Your task to perform on an android device: find which apps use the phone's location Image 0: 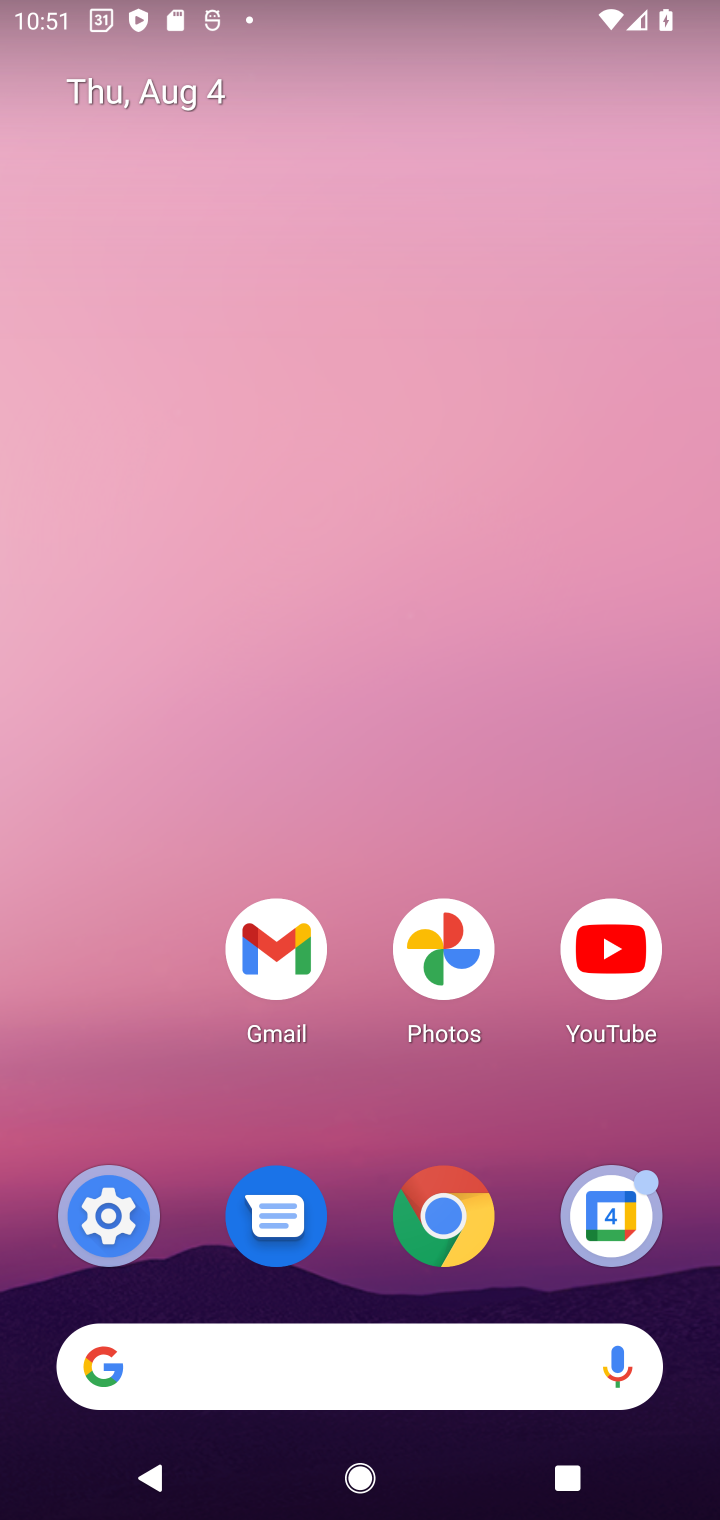
Step 0: drag from (255, 1354) to (395, 13)
Your task to perform on an android device: find which apps use the phone's location Image 1: 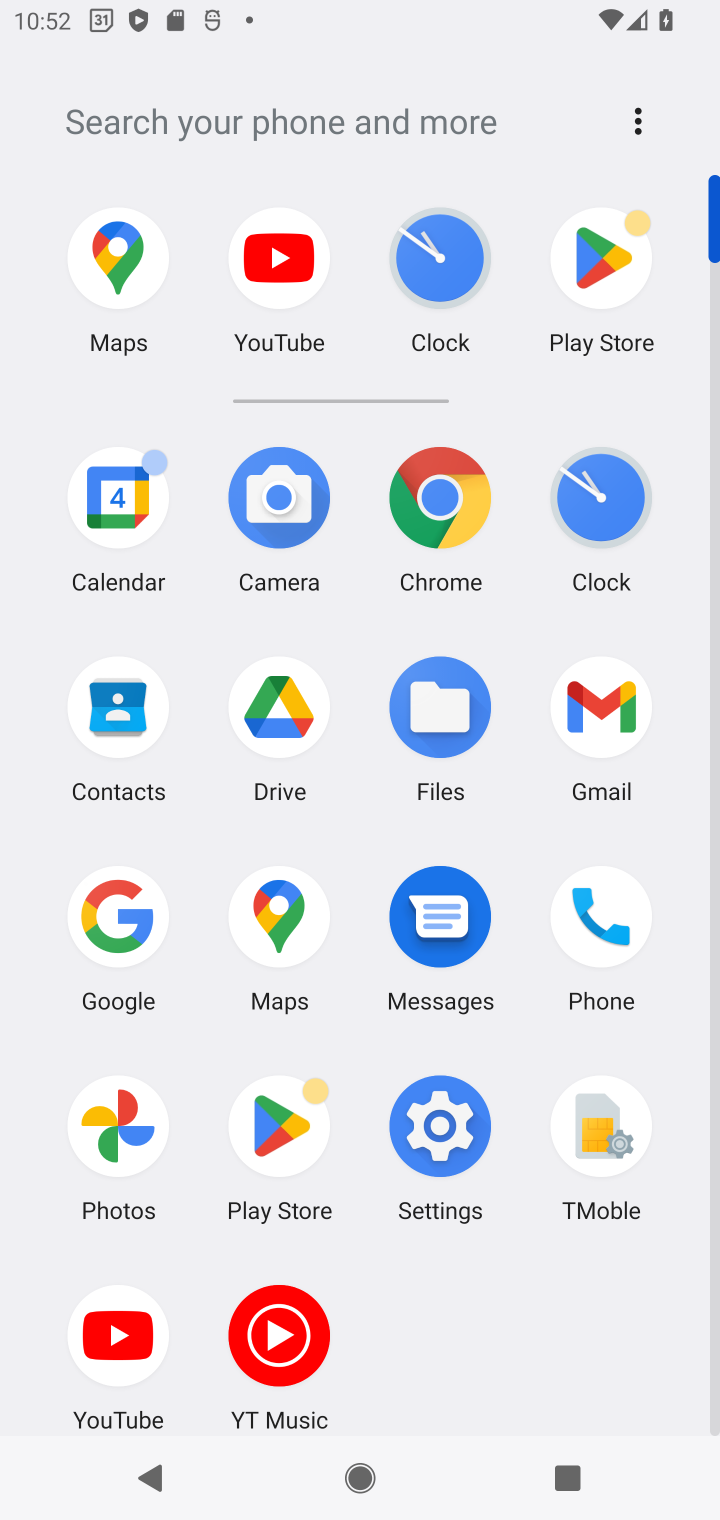
Step 1: click (435, 1124)
Your task to perform on an android device: find which apps use the phone's location Image 2: 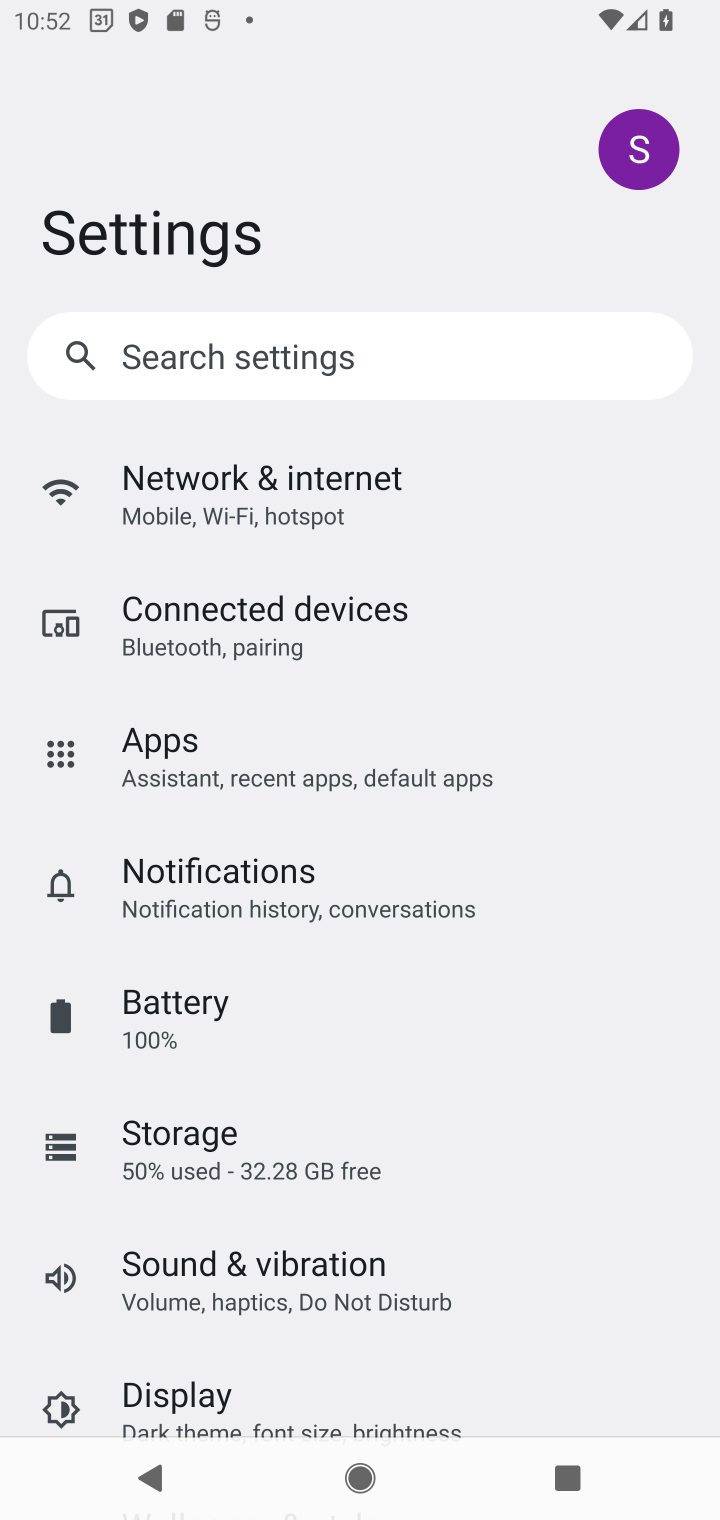
Step 2: drag from (265, 1223) to (382, 1022)
Your task to perform on an android device: find which apps use the phone's location Image 3: 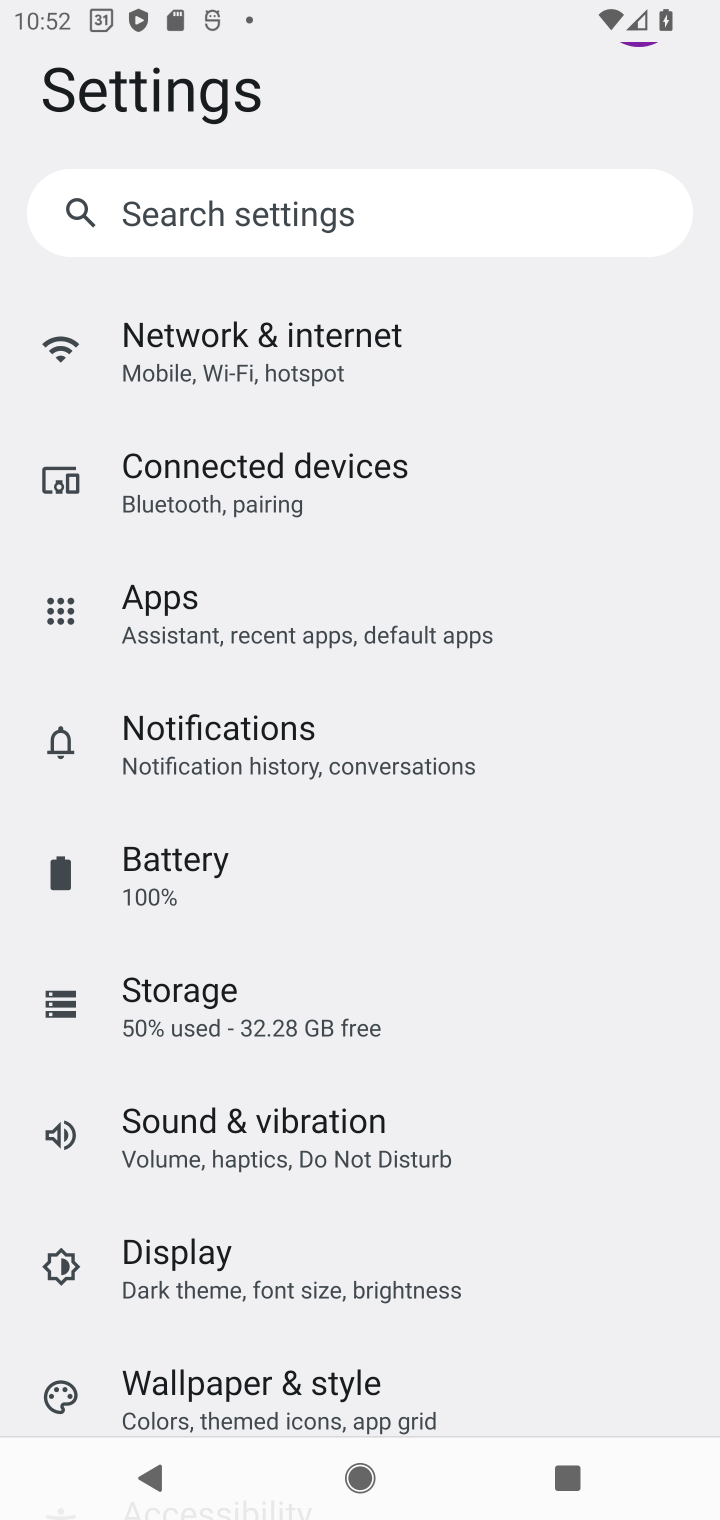
Step 3: drag from (236, 1232) to (292, 1040)
Your task to perform on an android device: find which apps use the phone's location Image 4: 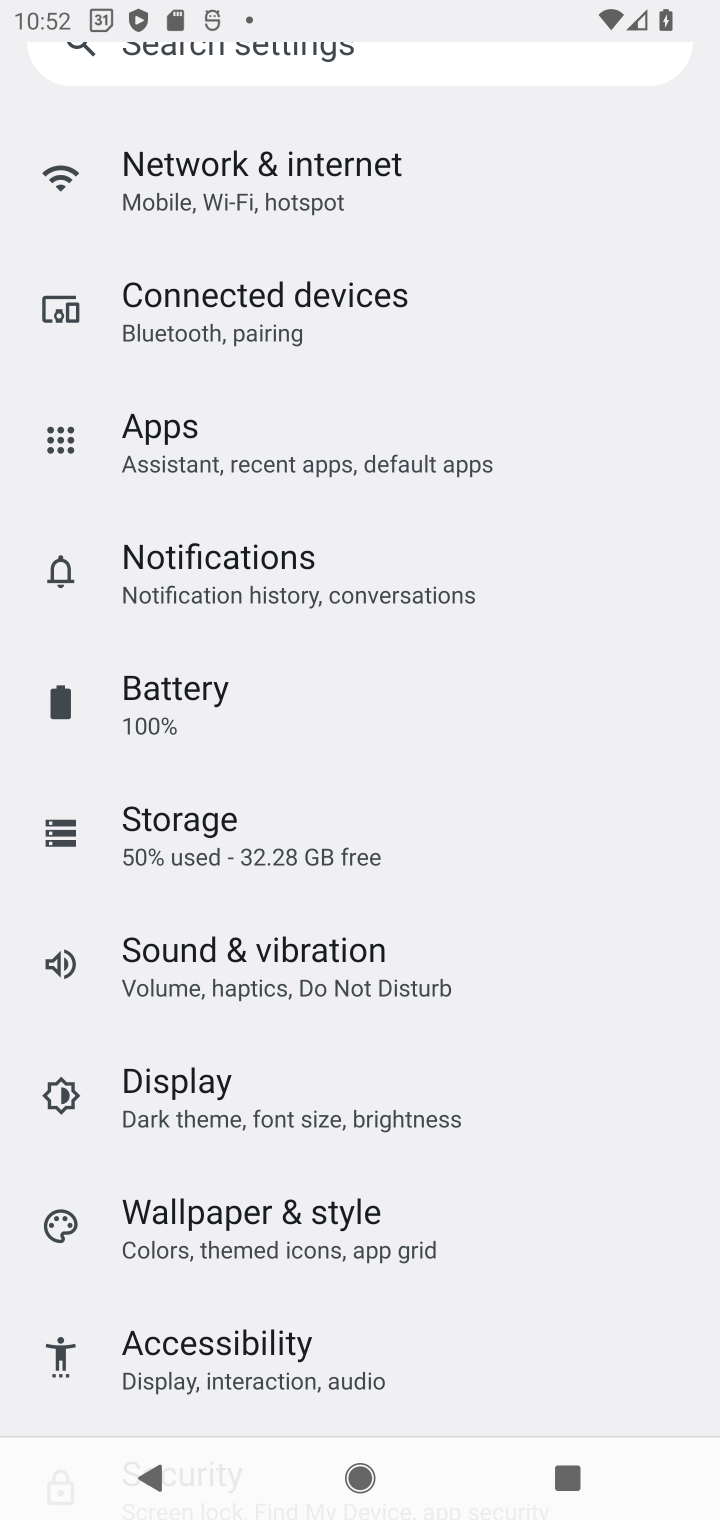
Step 4: drag from (236, 1276) to (319, 1005)
Your task to perform on an android device: find which apps use the phone's location Image 5: 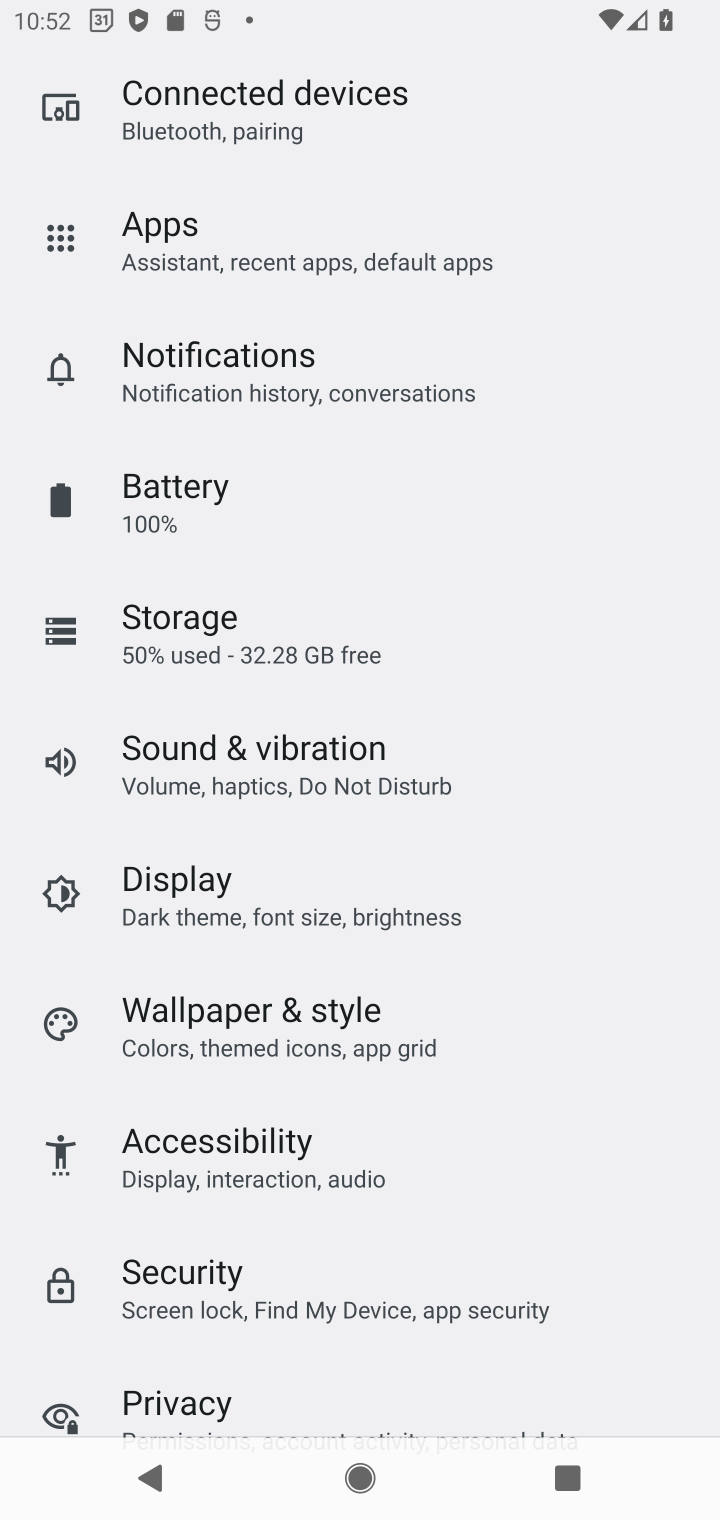
Step 5: drag from (215, 1362) to (333, 1029)
Your task to perform on an android device: find which apps use the phone's location Image 6: 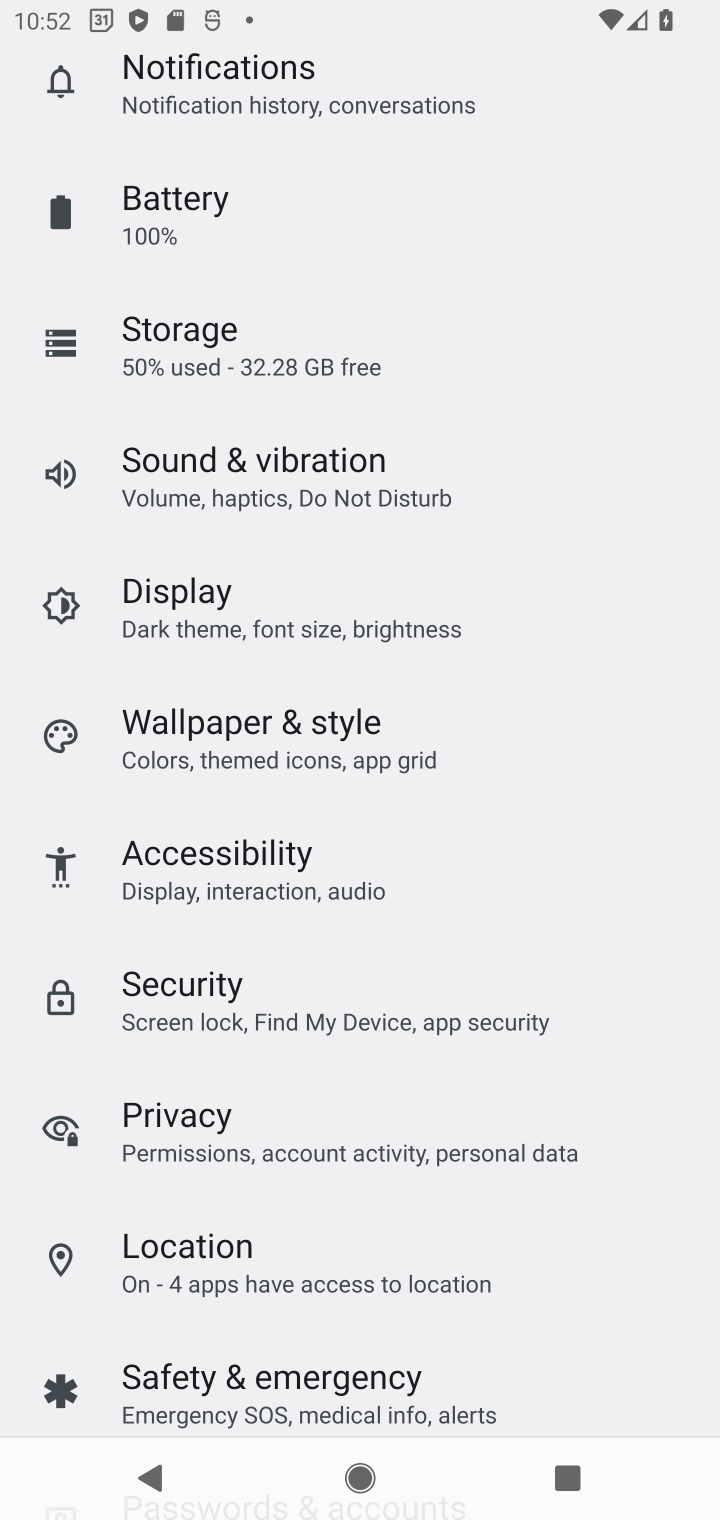
Step 6: click (233, 1274)
Your task to perform on an android device: find which apps use the phone's location Image 7: 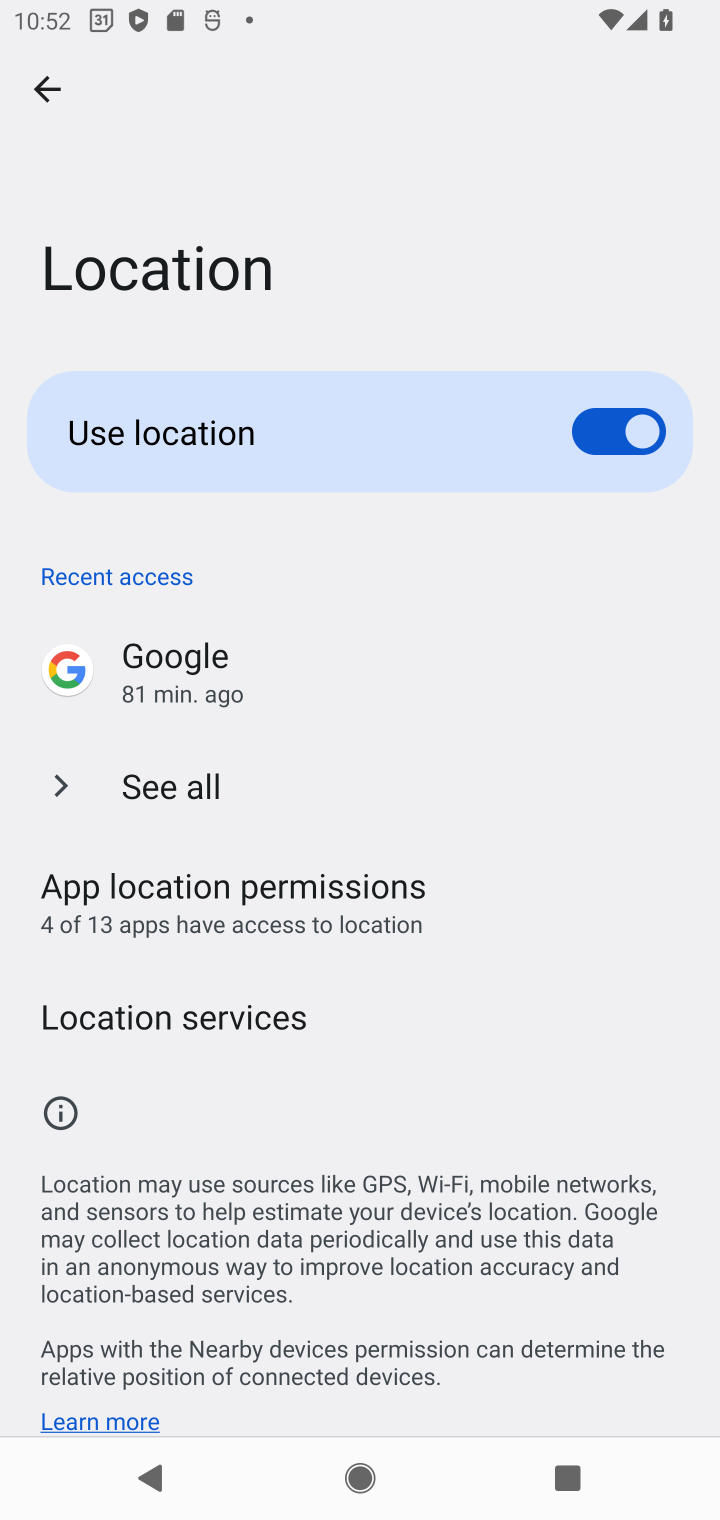
Step 7: click (243, 901)
Your task to perform on an android device: find which apps use the phone's location Image 8: 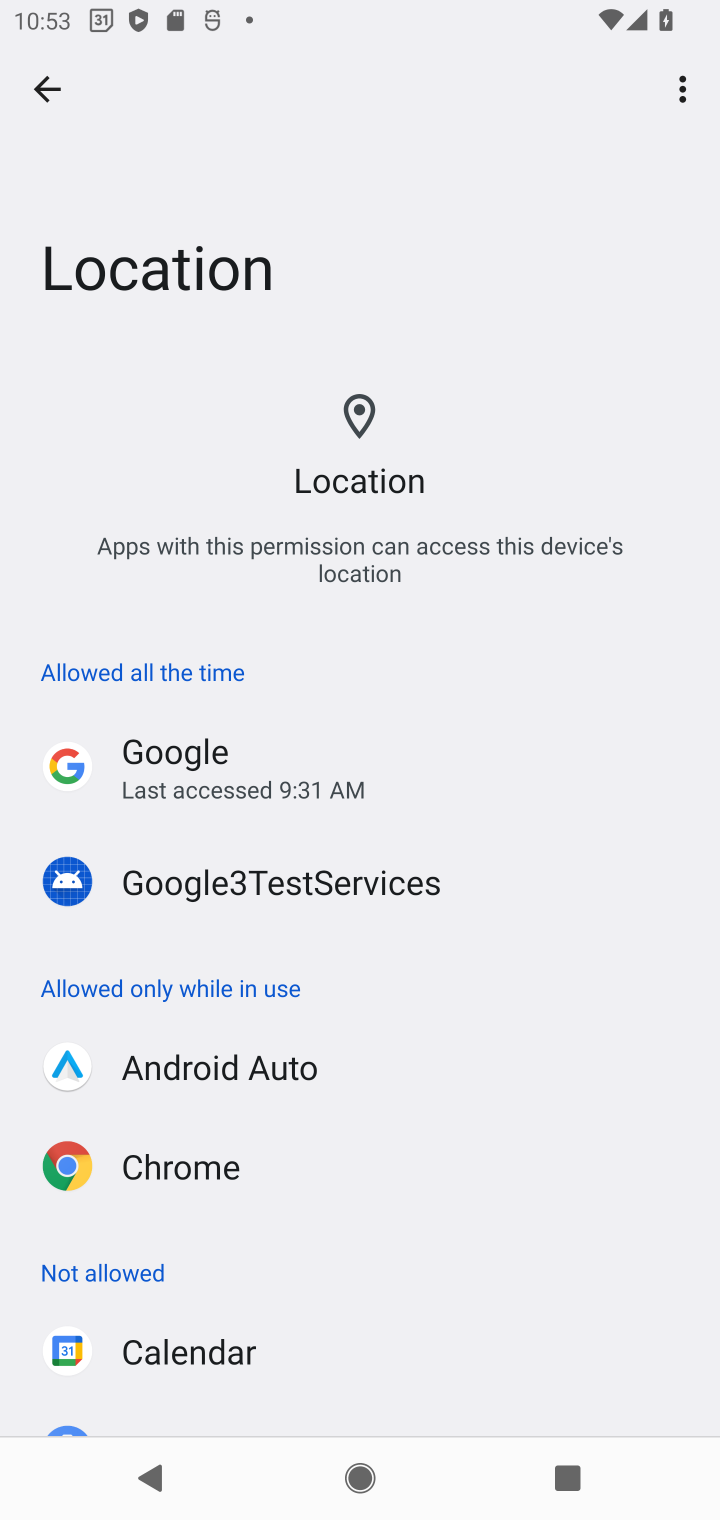
Step 8: drag from (200, 1291) to (308, 1074)
Your task to perform on an android device: find which apps use the phone's location Image 9: 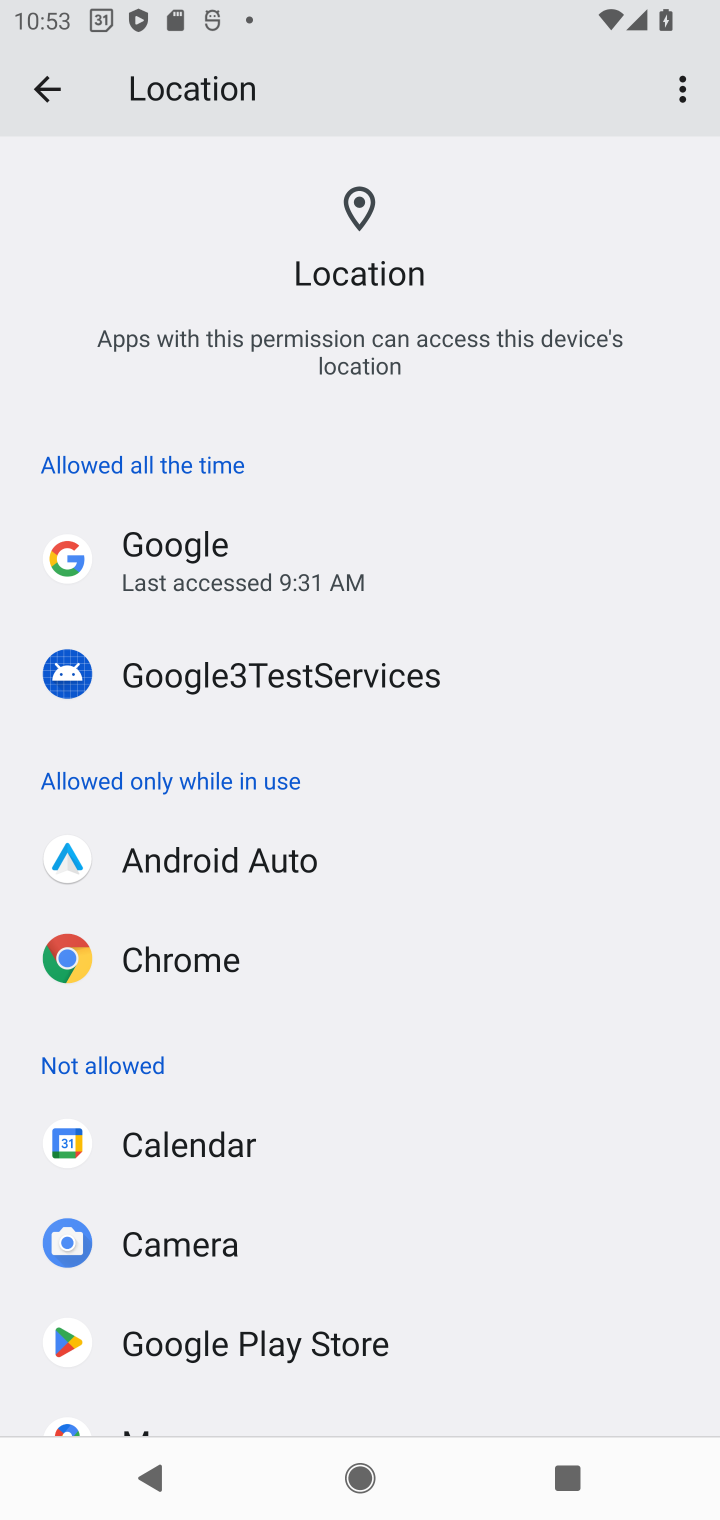
Step 9: drag from (261, 1303) to (345, 1057)
Your task to perform on an android device: find which apps use the phone's location Image 10: 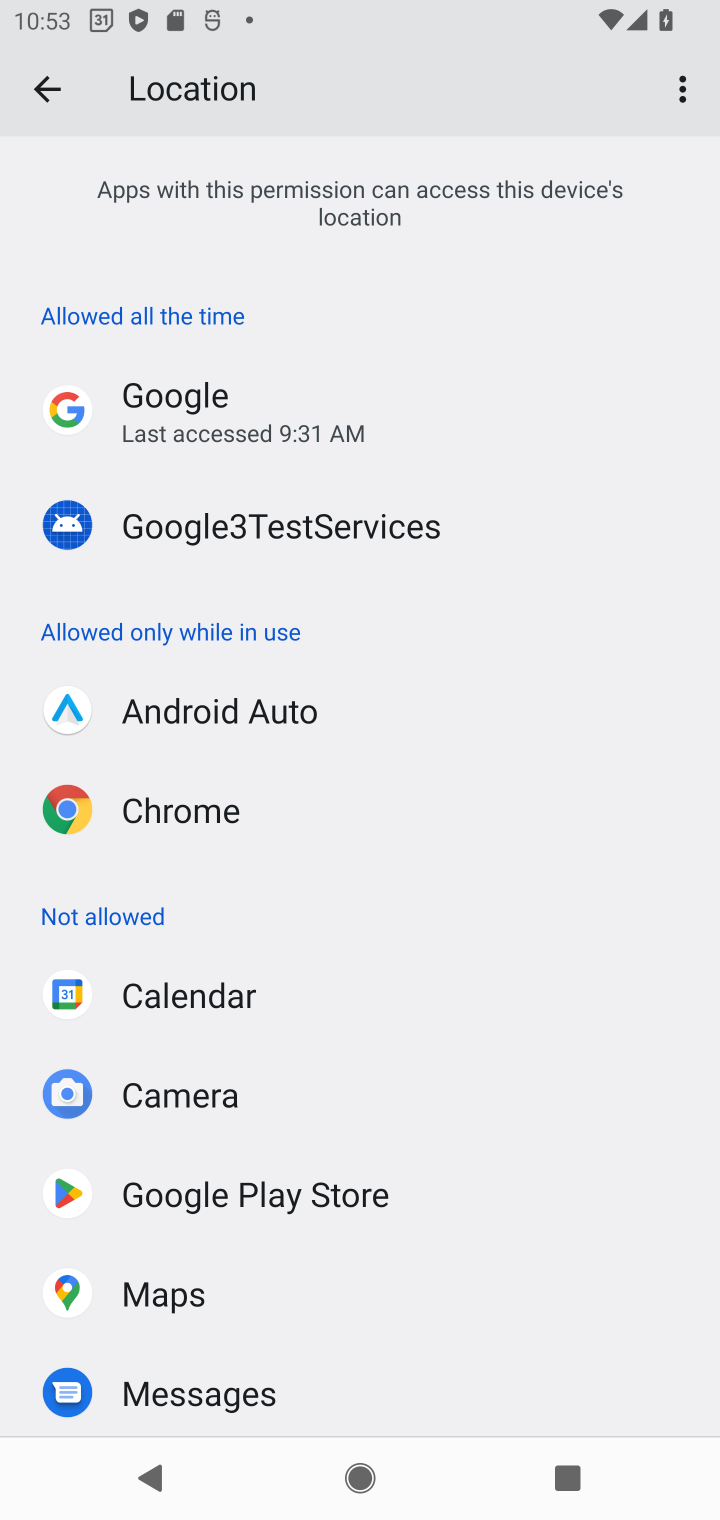
Step 10: click (157, 1314)
Your task to perform on an android device: find which apps use the phone's location Image 11: 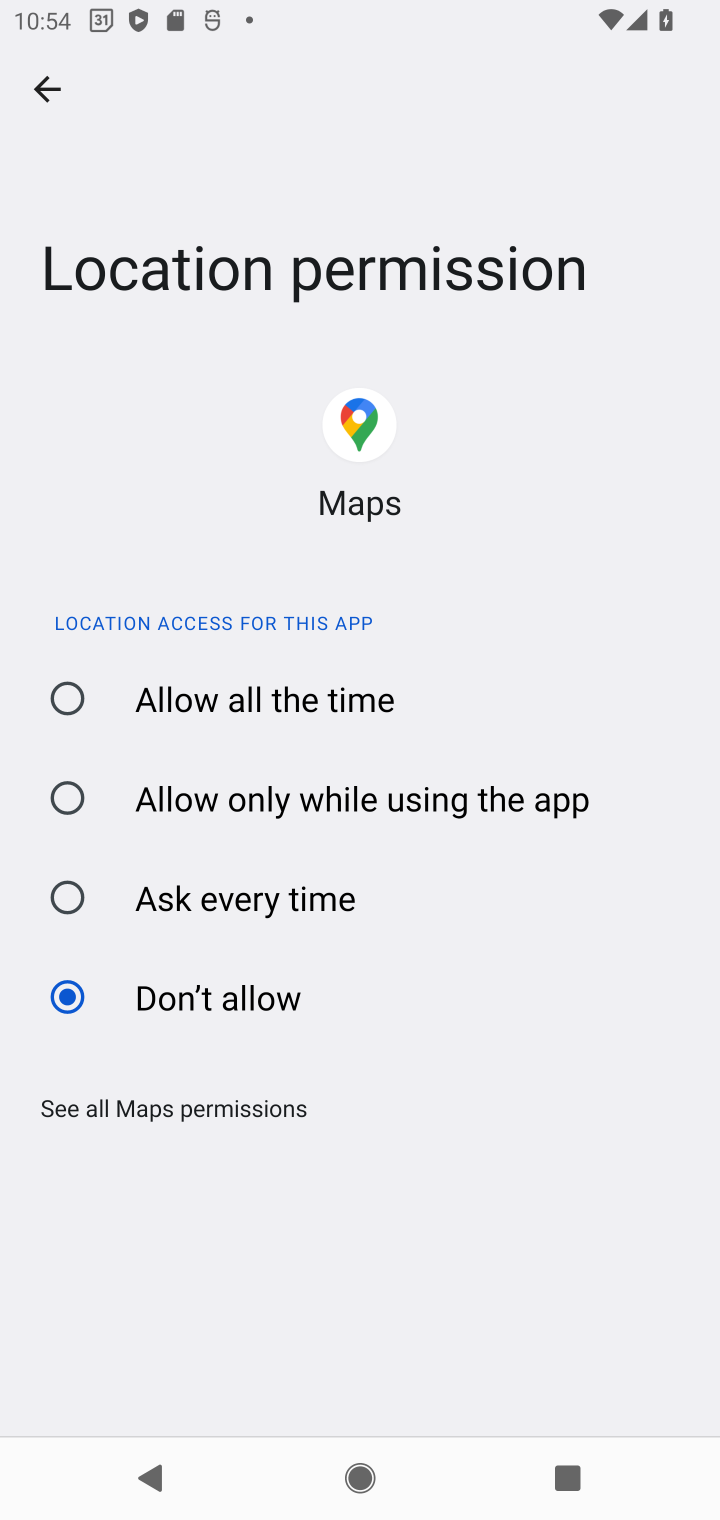
Step 11: click (85, 710)
Your task to perform on an android device: find which apps use the phone's location Image 12: 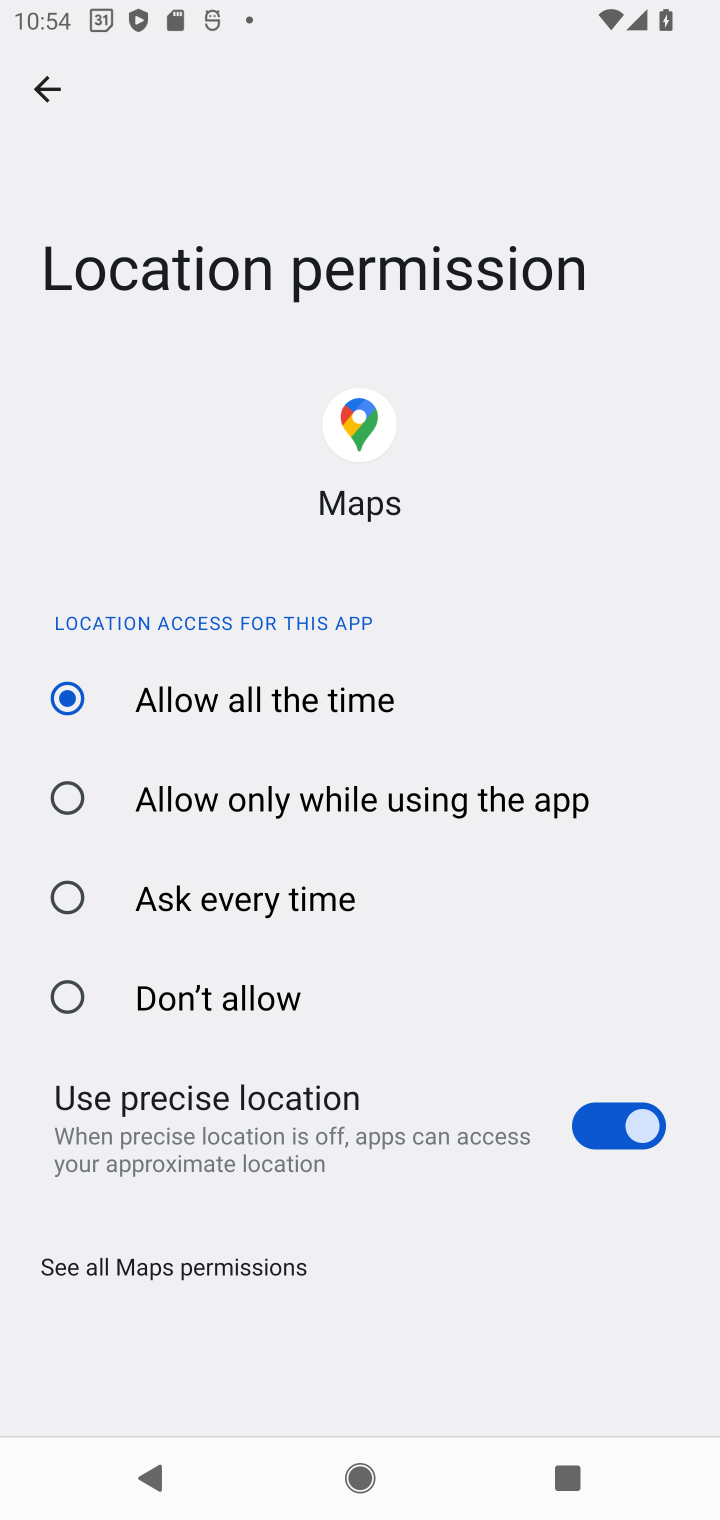
Step 12: task complete